Your task to perform on an android device: toggle notification dots Image 0: 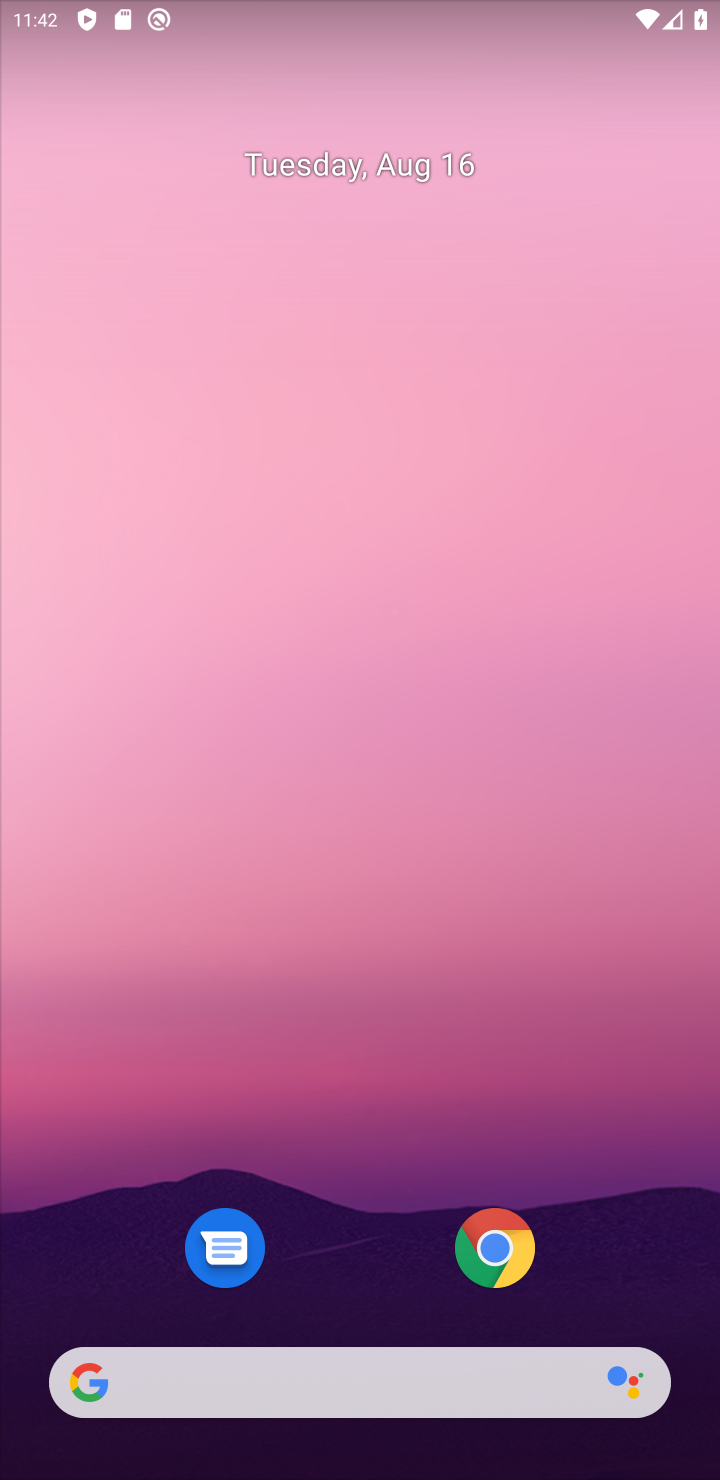
Step 0: drag from (530, 942) to (575, 592)
Your task to perform on an android device: toggle notification dots Image 1: 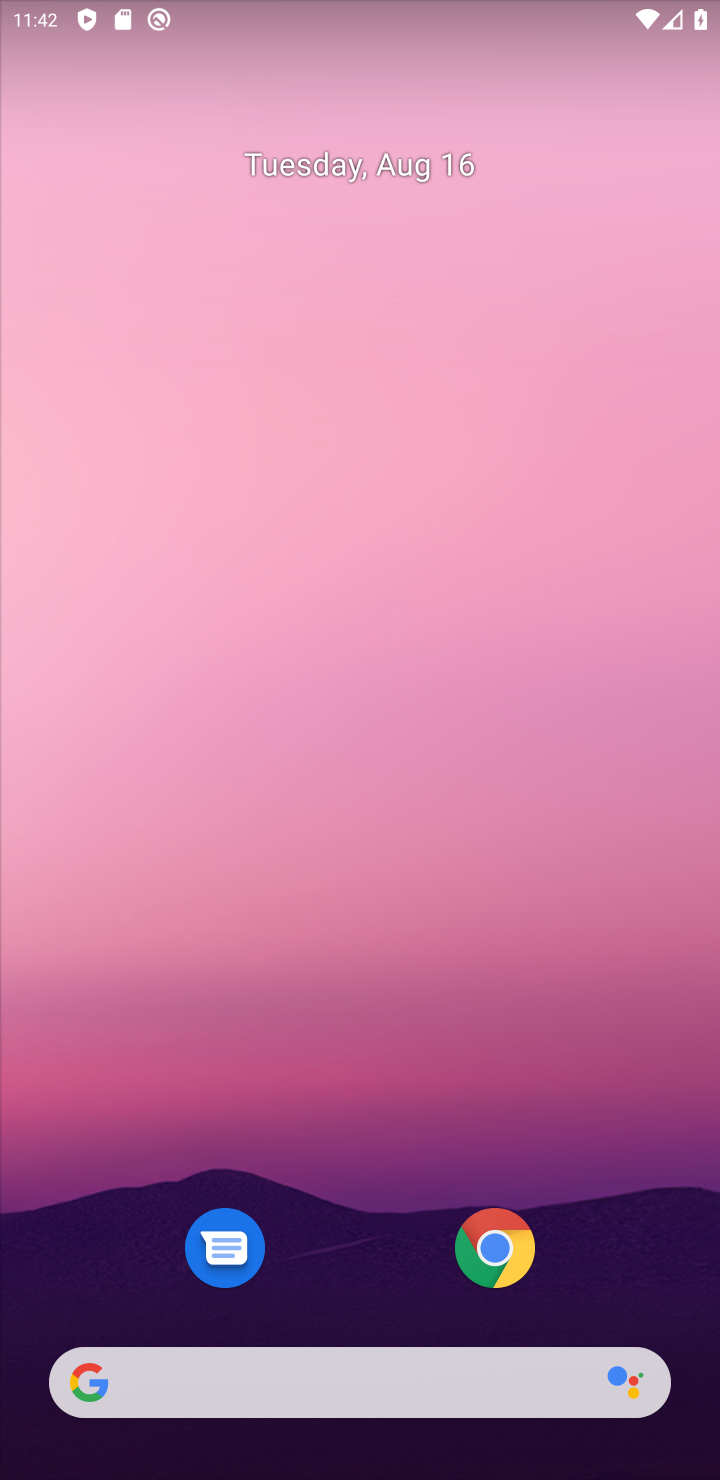
Step 1: drag from (364, 918) to (386, 279)
Your task to perform on an android device: toggle notification dots Image 2: 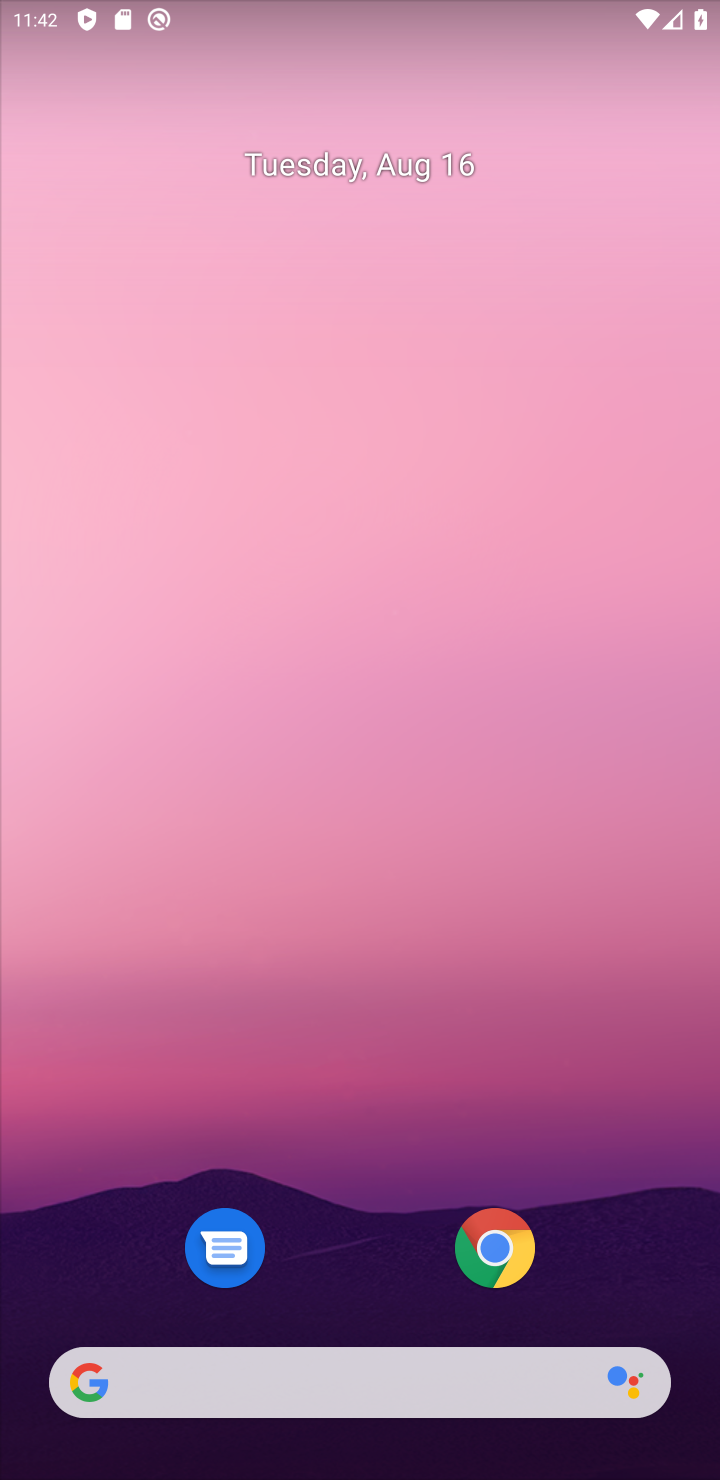
Step 2: drag from (368, 938) to (445, 79)
Your task to perform on an android device: toggle notification dots Image 3: 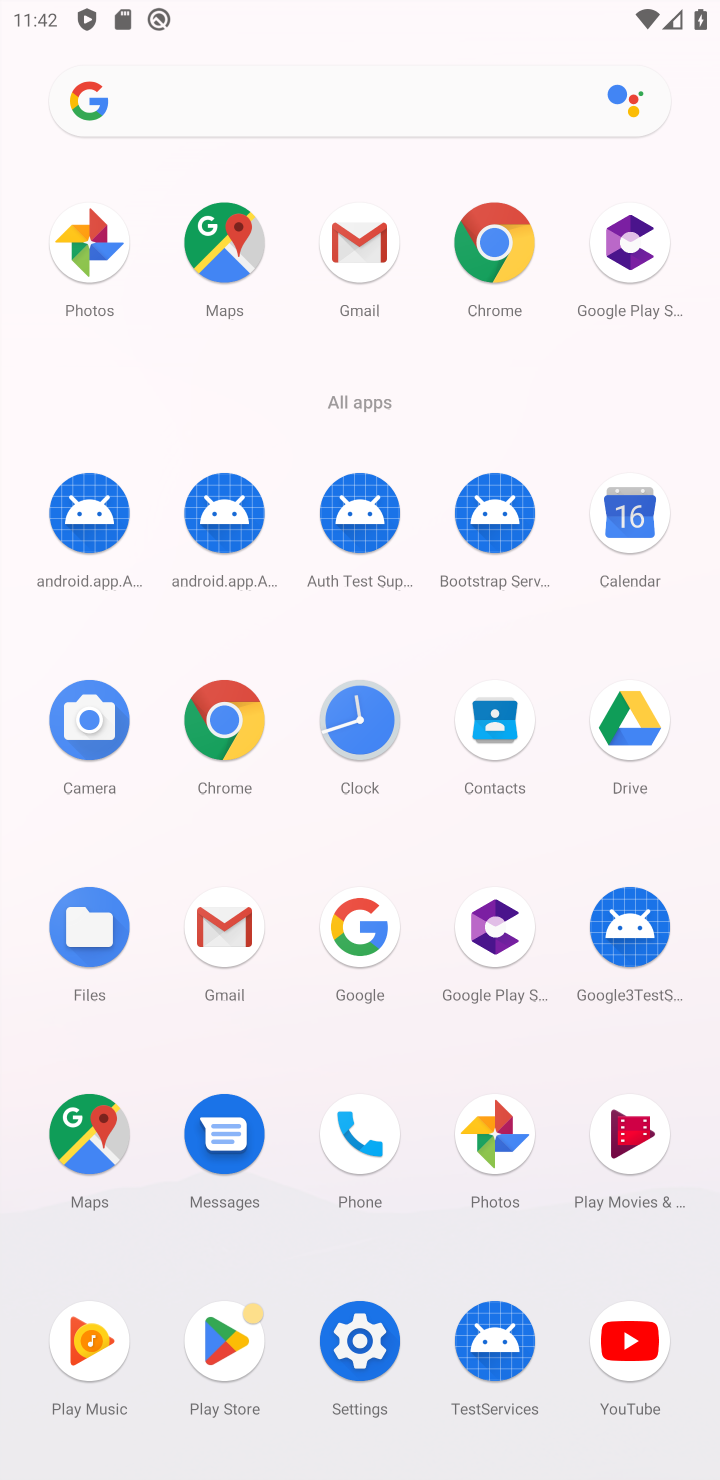
Step 3: click (472, 242)
Your task to perform on an android device: toggle notification dots Image 4: 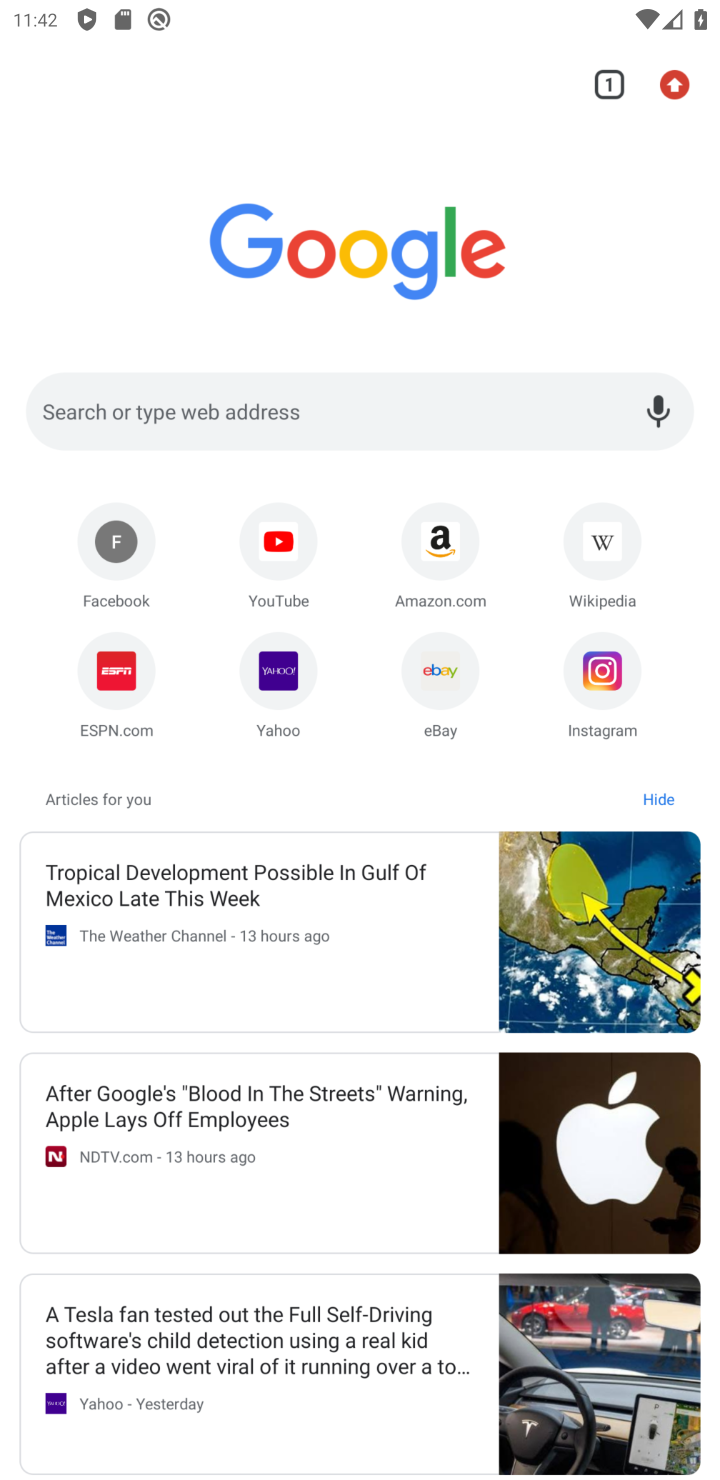
Step 4: task complete